Your task to perform on an android device: Clear the shopping cart on amazon. Add logitech g910 to the cart on amazon Image 0: 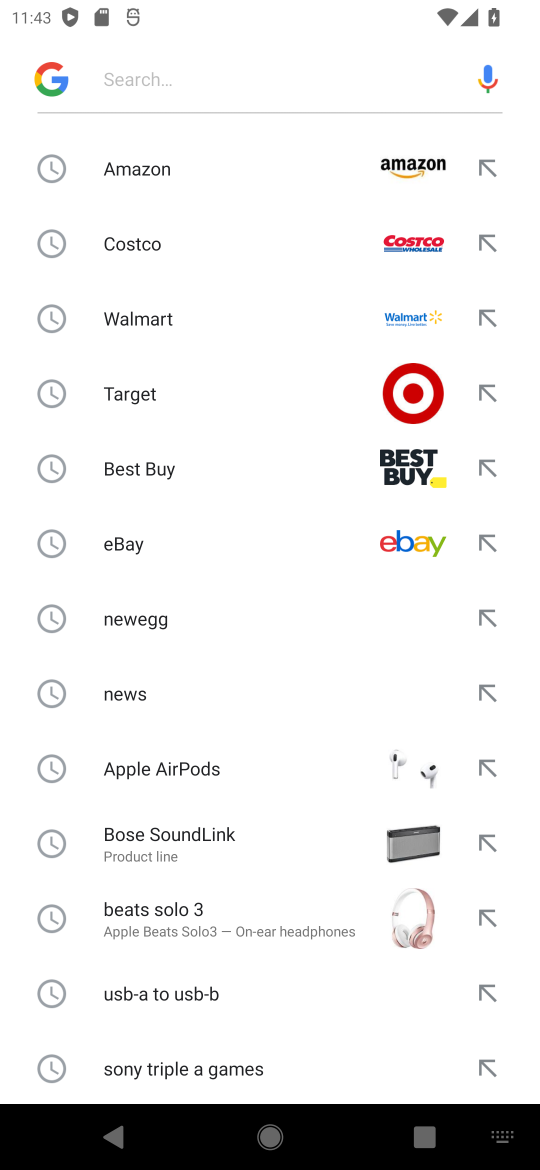
Step 0: type "amazon.com"
Your task to perform on an android device: Clear the shopping cart on amazon. Add logitech g910 to the cart on amazon Image 1: 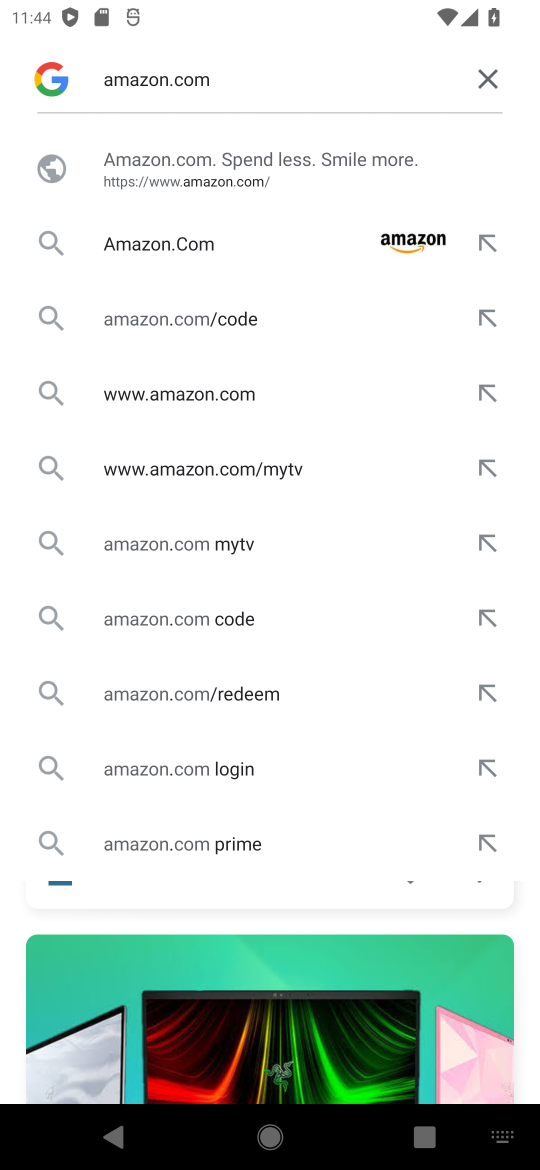
Step 1: click (156, 189)
Your task to perform on an android device: Clear the shopping cart on amazon. Add logitech g910 to the cart on amazon Image 2: 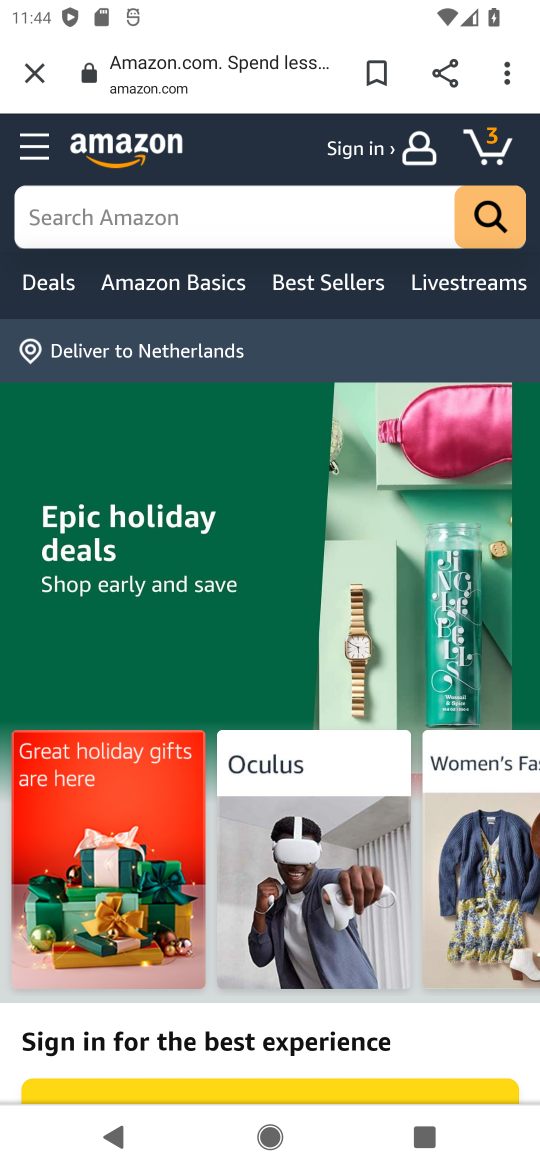
Step 2: click (488, 152)
Your task to perform on an android device: Clear the shopping cart on amazon. Add logitech g910 to the cart on amazon Image 3: 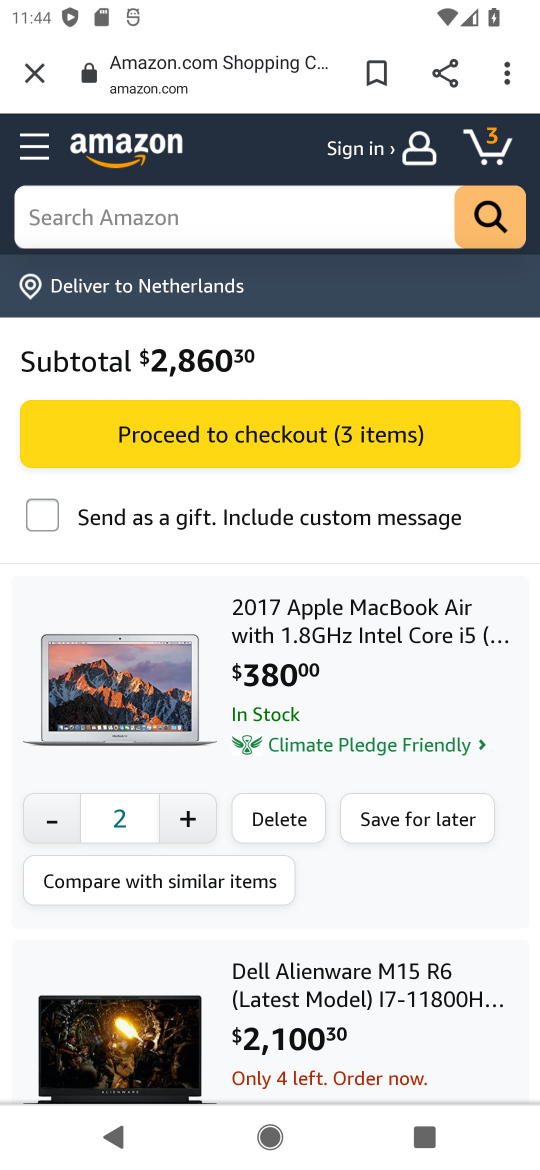
Step 3: click (269, 825)
Your task to perform on an android device: Clear the shopping cart on amazon. Add logitech g910 to the cart on amazon Image 4: 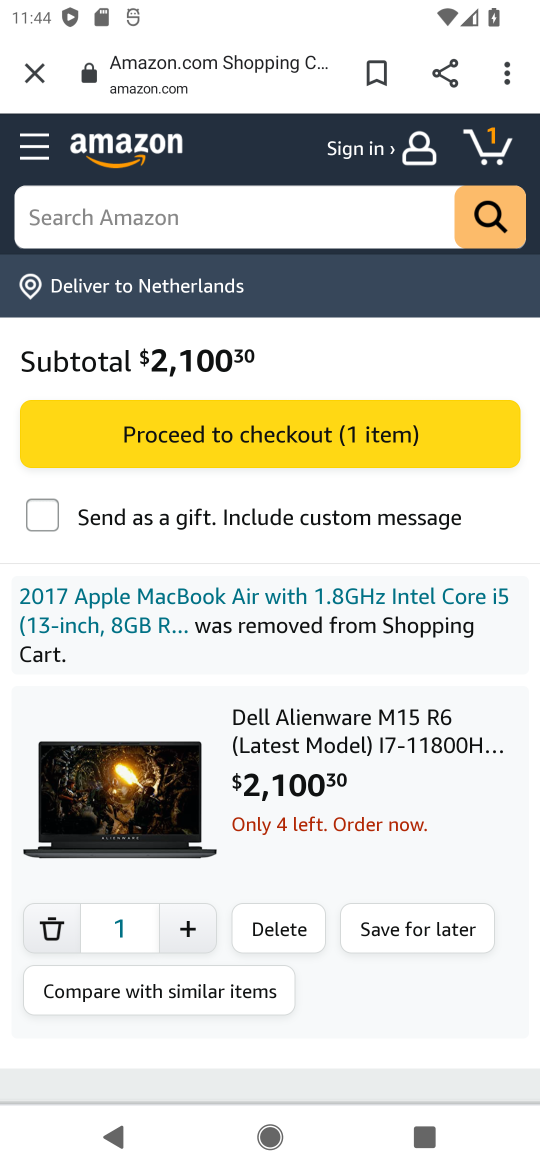
Step 4: click (272, 933)
Your task to perform on an android device: Clear the shopping cart on amazon. Add logitech g910 to the cart on amazon Image 5: 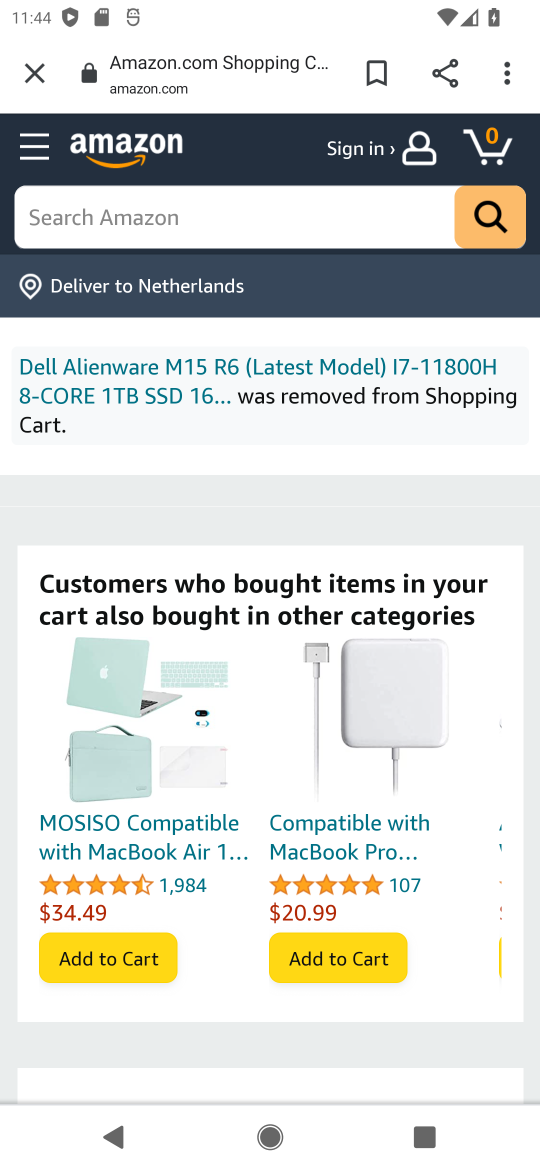
Step 5: click (93, 214)
Your task to perform on an android device: Clear the shopping cart on amazon. Add logitech g910 to the cart on amazon Image 6: 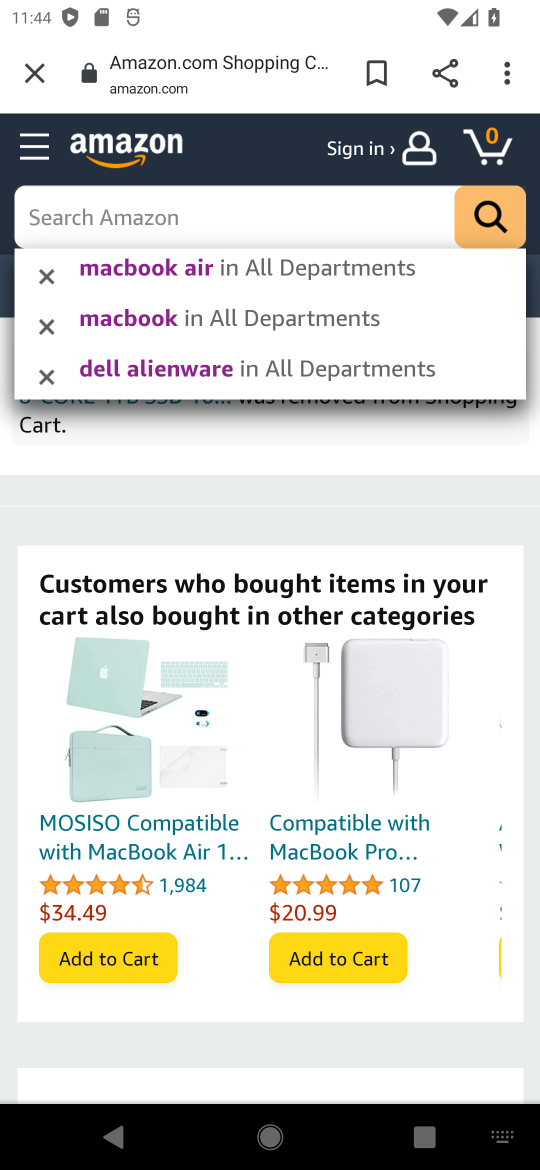
Step 6: type "logitech g910"
Your task to perform on an android device: Clear the shopping cart on amazon. Add logitech g910 to the cart on amazon Image 7: 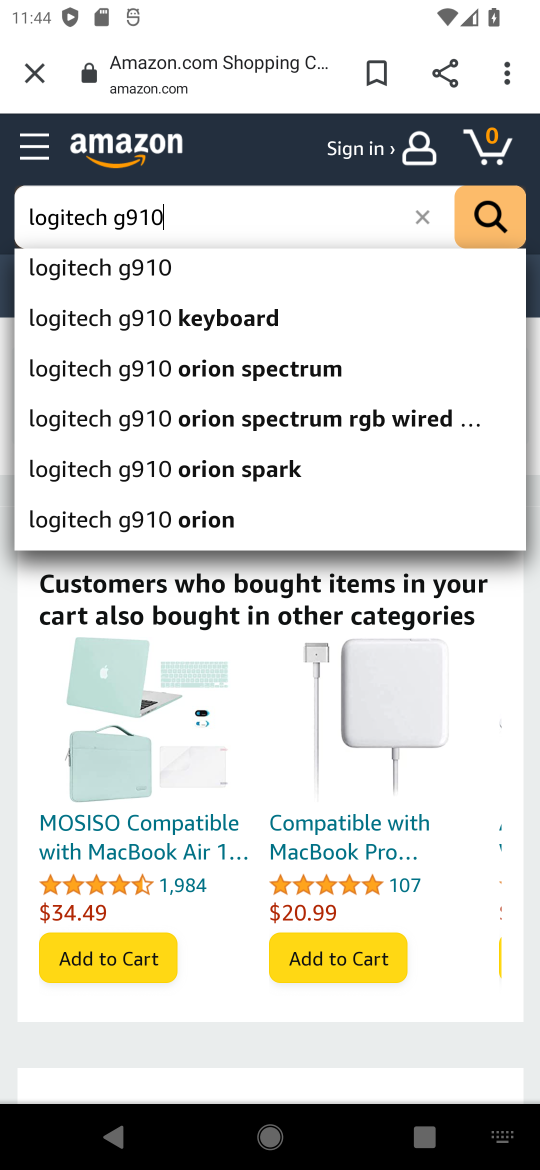
Step 7: click (107, 268)
Your task to perform on an android device: Clear the shopping cart on amazon. Add logitech g910 to the cart on amazon Image 8: 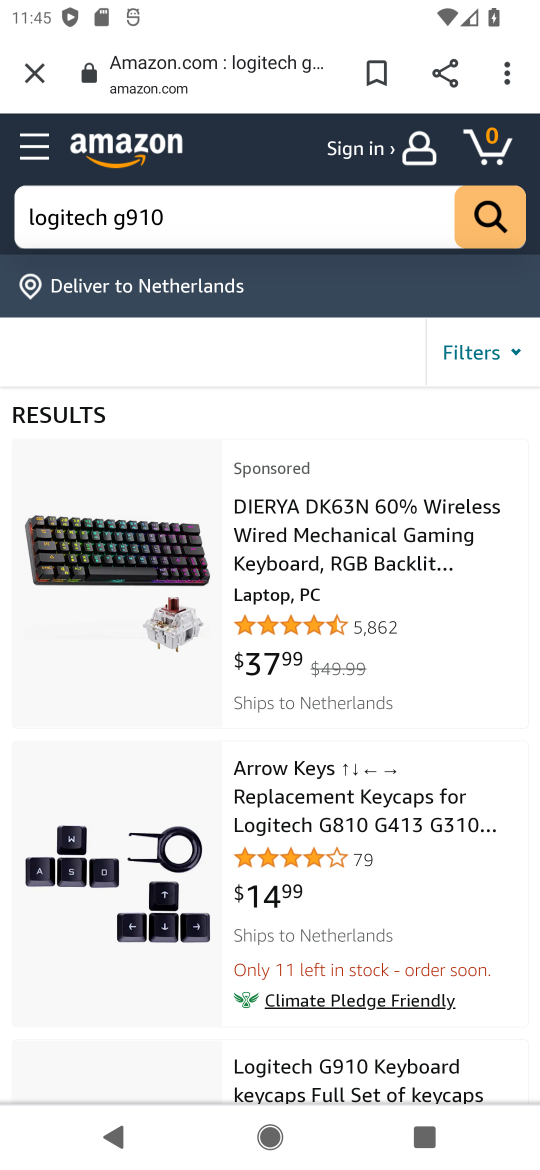
Step 8: drag from (308, 829) to (325, 558)
Your task to perform on an android device: Clear the shopping cart on amazon. Add logitech g910 to the cart on amazon Image 9: 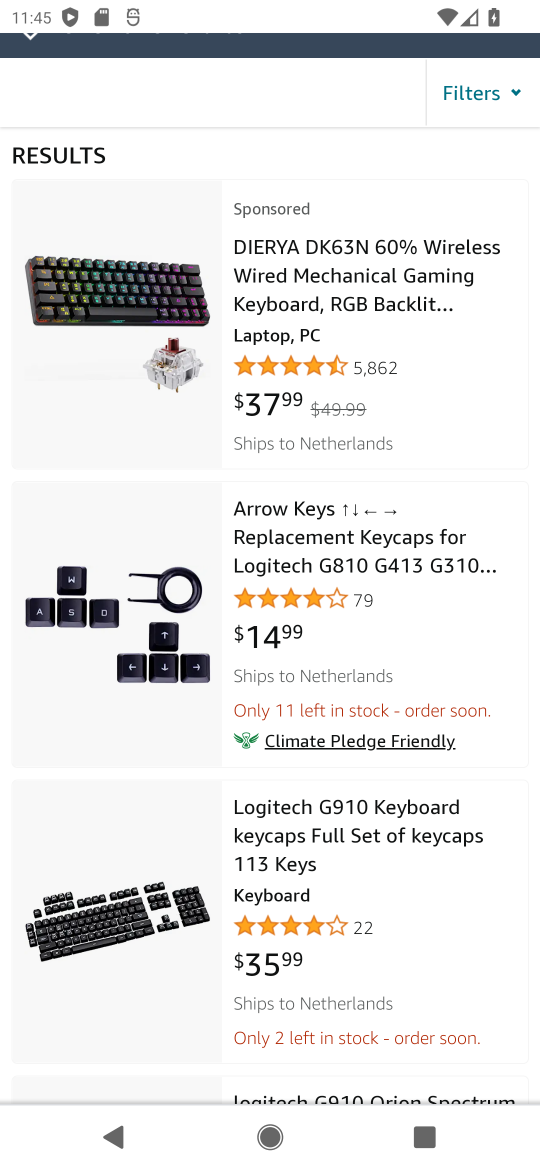
Step 9: drag from (333, 852) to (344, 653)
Your task to perform on an android device: Clear the shopping cart on amazon. Add logitech g910 to the cart on amazon Image 10: 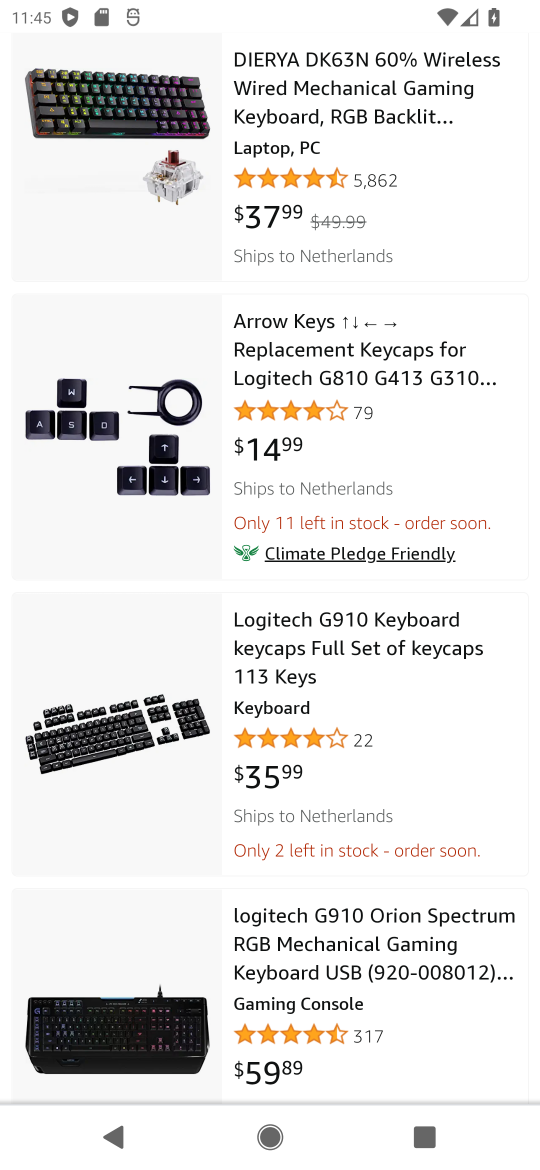
Step 10: click (286, 674)
Your task to perform on an android device: Clear the shopping cart on amazon. Add logitech g910 to the cart on amazon Image 11: 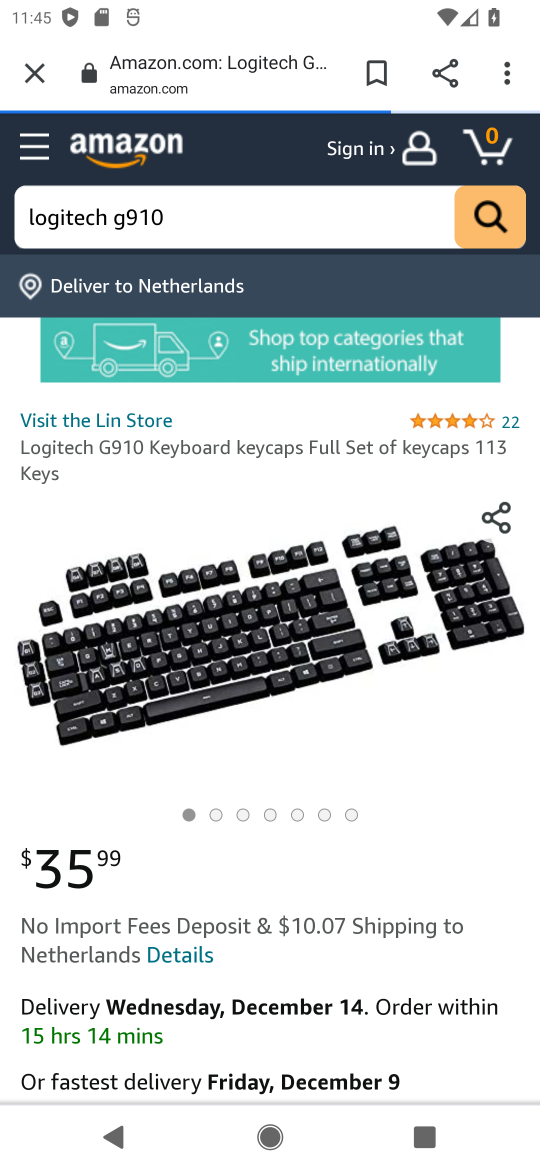
Step 11: drag from (288, 901) to (288, 425)
Your task to perform on an android device: Clear the shopping cart on amazon. Add logitech g910 to the cart on amazon Image 12: 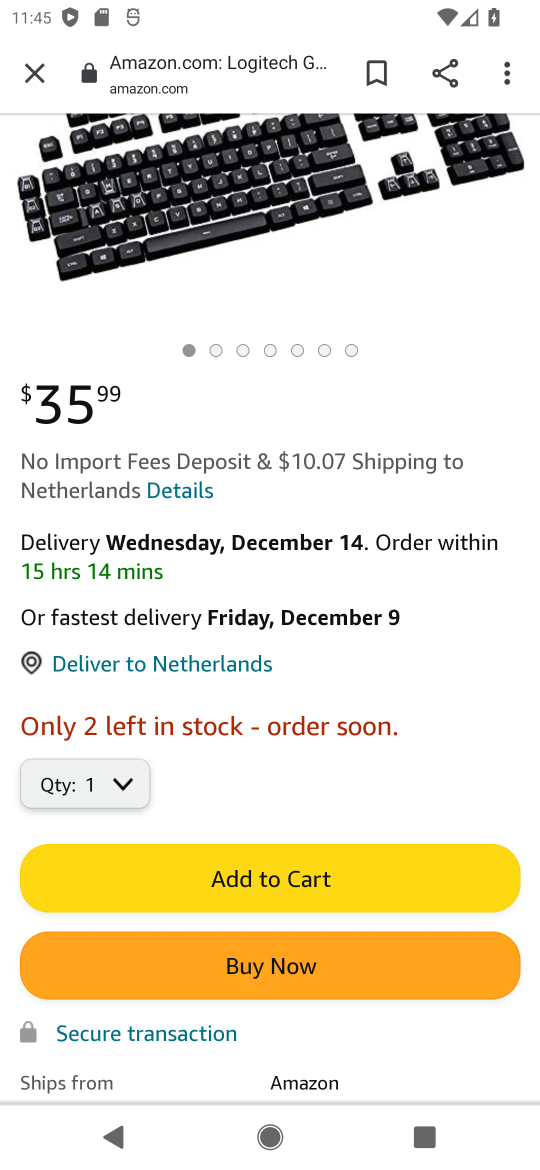
Step 12: click (244, 870)
Your task to perform on an android device: Clear the shopping cart on amazon. Add logitech g910 to the cart on amazon Image 13: 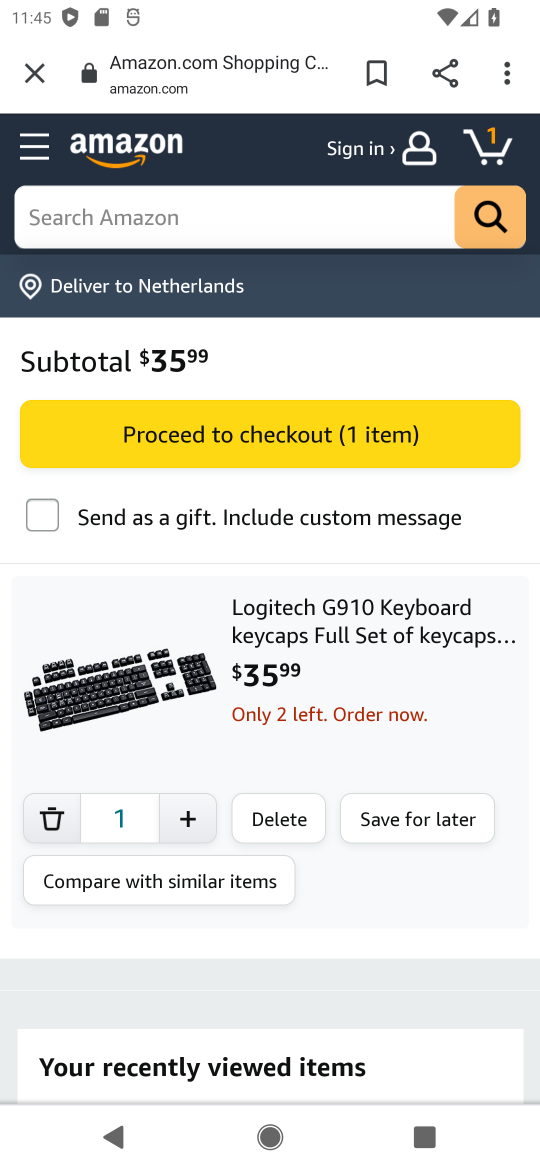
Step 13: task complete